Your task to perform on an android device: open the mobile data screen to see how much data has been used Image 0: 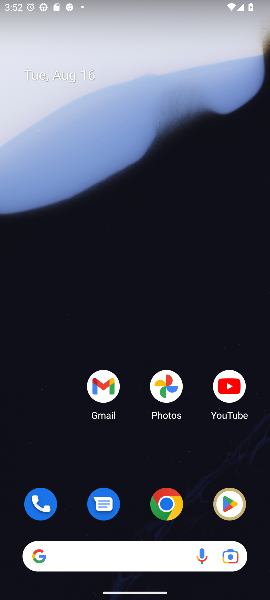
Step 0: drag from (139, 517) to (127, 124)
Your task to perform on an android device: open the mobile data screen to see how much data has been used Image 1: 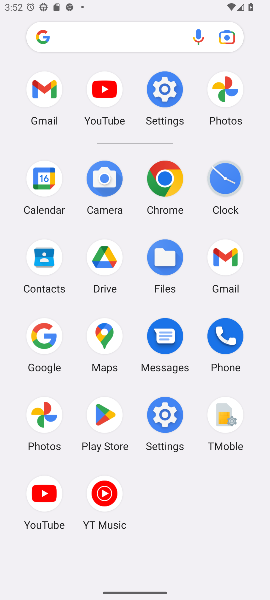
Step 1: click (167, 92)
Your task to perform on an android device: open the mobile data screen to see how much data has been used Image 2: 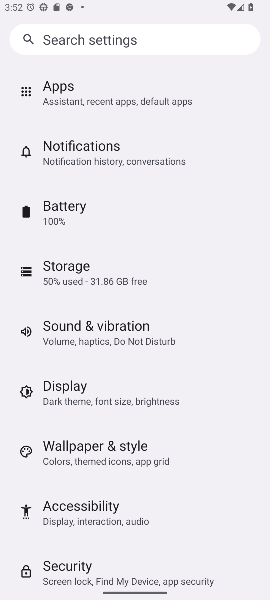
Step 2: drag from (201, 168) to (165, 363)
Your task to perform on an android device: open the mobile data screen to see how much data has been used Image 3: 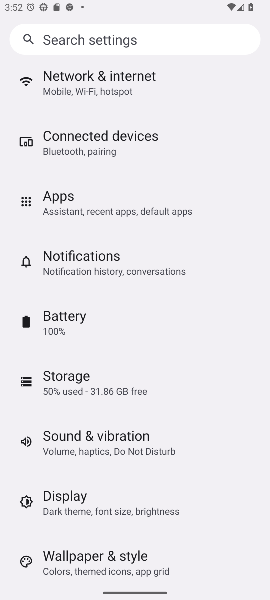
Step 3: click (99, 70)
Your task to perform on an android device: open the mobile data screen to see how much data has been used Image 4: 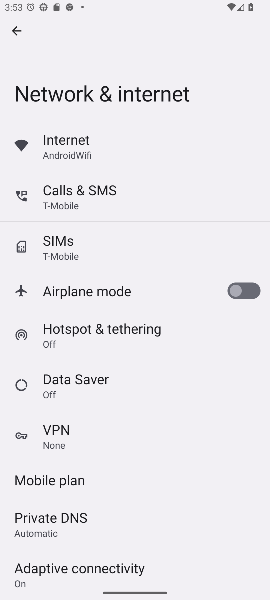
Step 4: click (63, 140)
Your task to perform on an android device: open the mobile data screen to see how much data has been used Image 5: 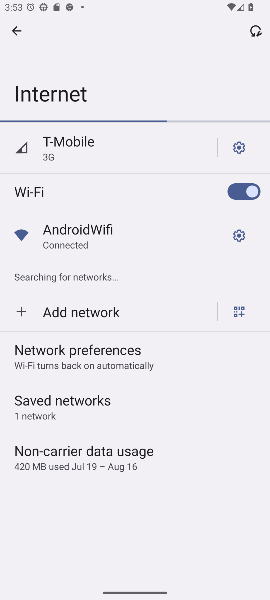
Step 5: click (70, 451)
Your task to perform on an android device: open the mobile data screen to see how much data has been used Image 6: 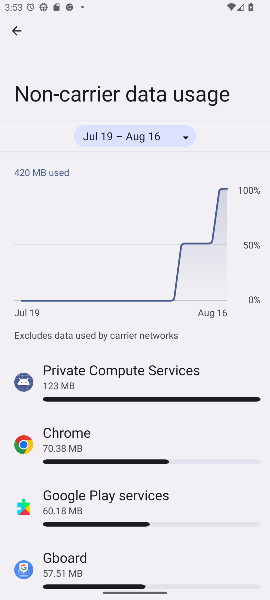
Step 6: task complete